Your task to perform on an android device: Open Google Chrome Image 0: 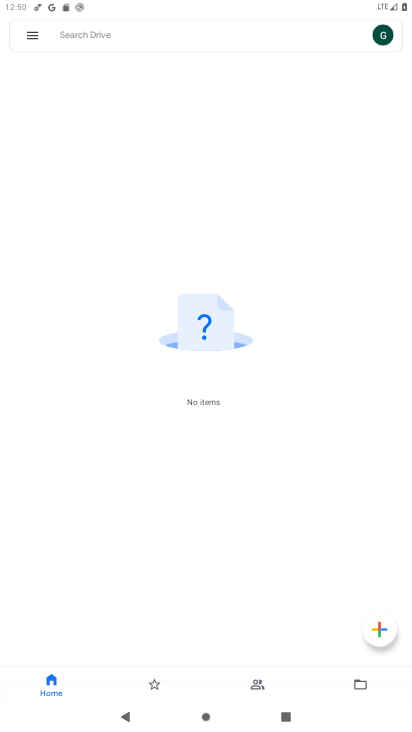
Step 0: press home button
Your task to perform on an android device: Open Google Chrome Image 1: 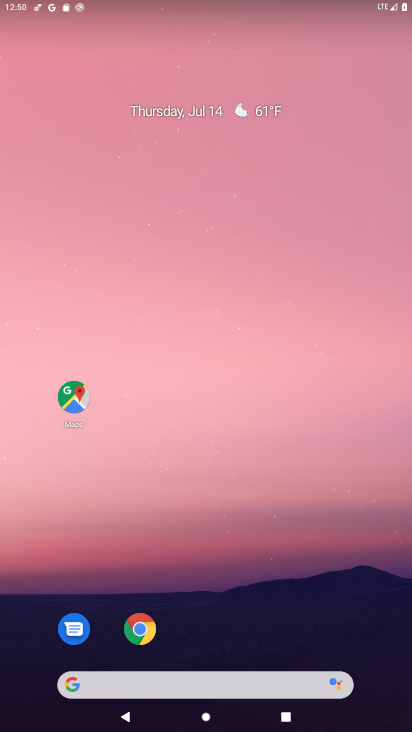
Step 1: drag from (340, 372) to (302, 51)
Your task to perform on an android device: Open Google Chrome Image 2: 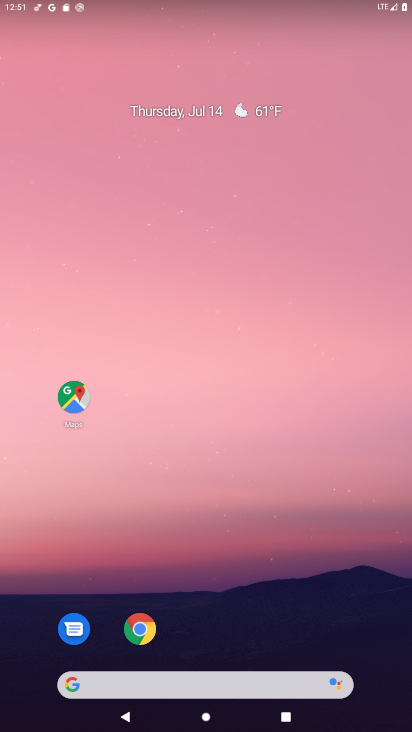
Step 2: drag from (267, 111) to (273, 71)
Your task to perform on an android device: Open Google Chrome Image 3: 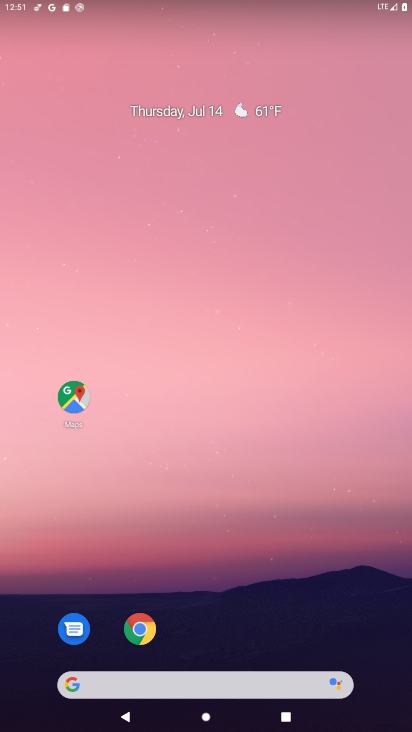
Step 3: drag from (276, 553) to (248, 179)
Your task to perform on an android device: Open Google Chrome Image 4: 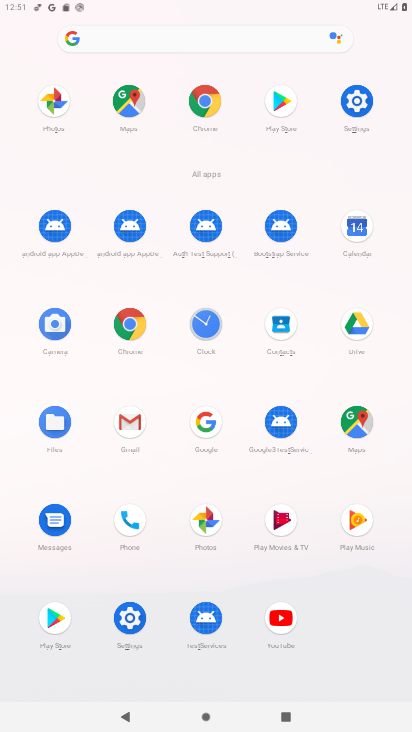
Step 4: click (217, 93)
Your task to perform on an android device: Open Google Chrome Image 5: 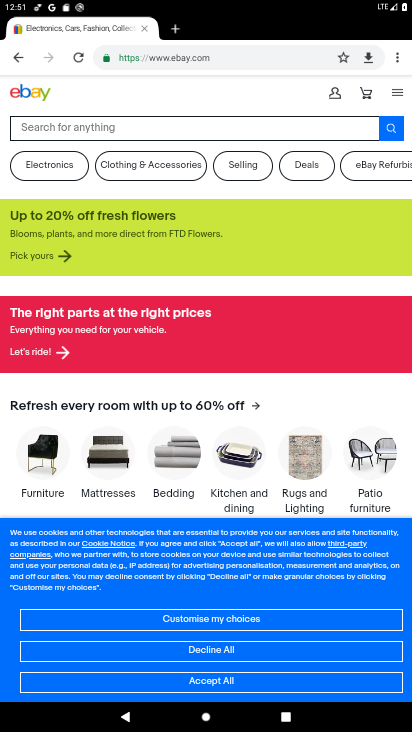
Step 5: task complete